Your task to perform on an android device: Go to Reddit.com Image 0: 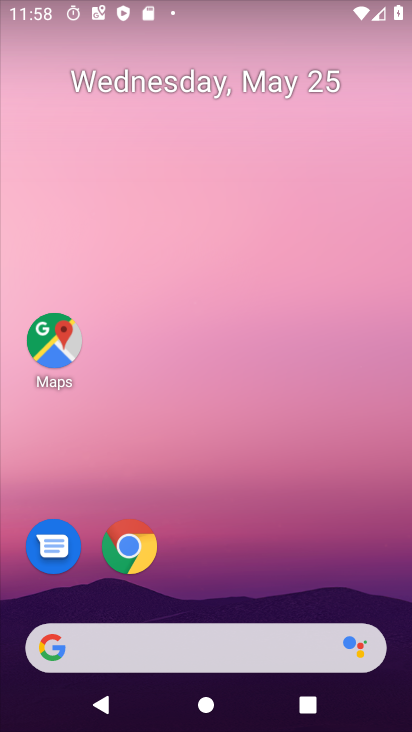
Step 0: click (124, 541)
Your task to perform on an android device: Go to Reddit.com Image 1: 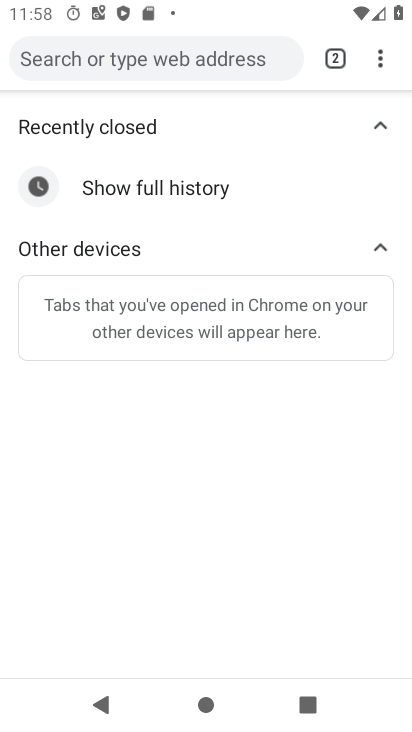
Step 1: click (192, 68)
Your task to perform on an android device: Go to Reddit.com Image 2: 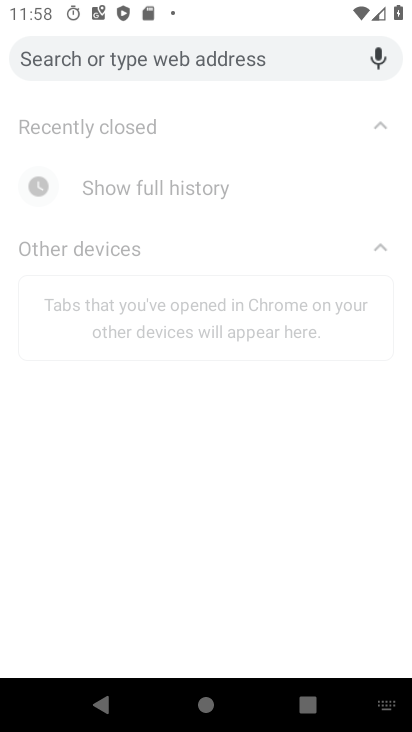
Step 2: type "reddit.com"
Your task to perform on an android device: Go to Reddit.com Image 3: 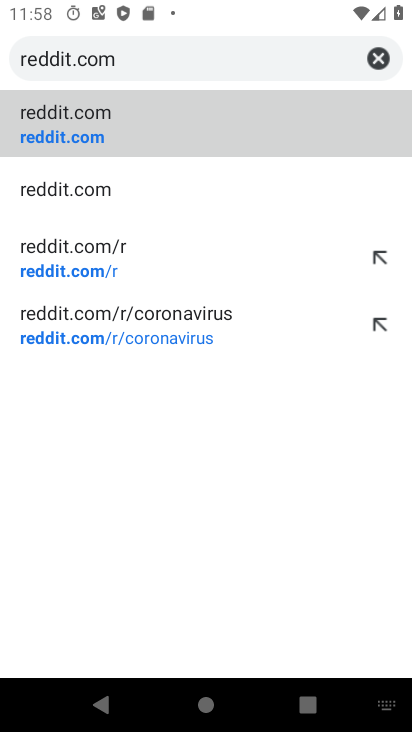
Step 3: click (178, 112)
Your task to perform on an android device: Go to Reddit.com Image 4: 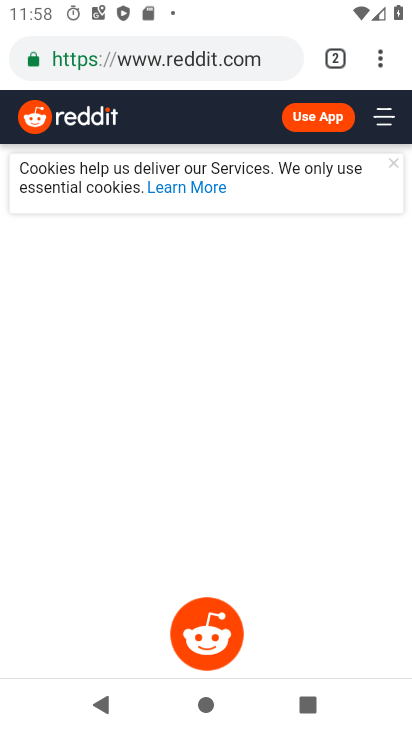
Step 4: task complete